Your task to perform on an android device: turn on bluetooth scan Image 0: 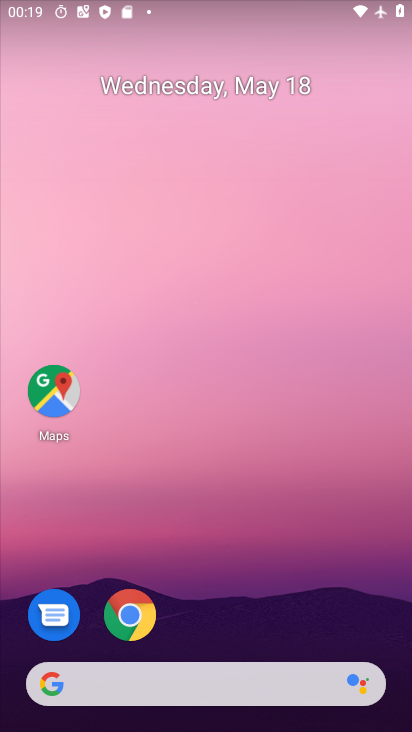
Step 0: drag from (207, 594) to (212, 228)
Your task to perform on an android device: turn on bluetooth scan Image 1: 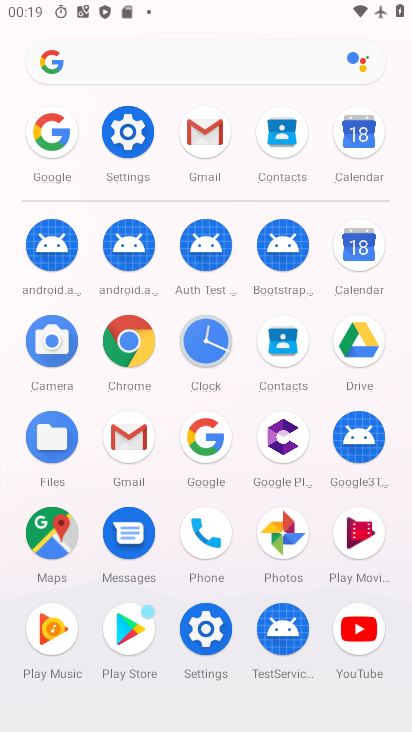
Step 1: click (149, 138)
Your task to perform on an android device: turn on bluetooth scan Image 2: 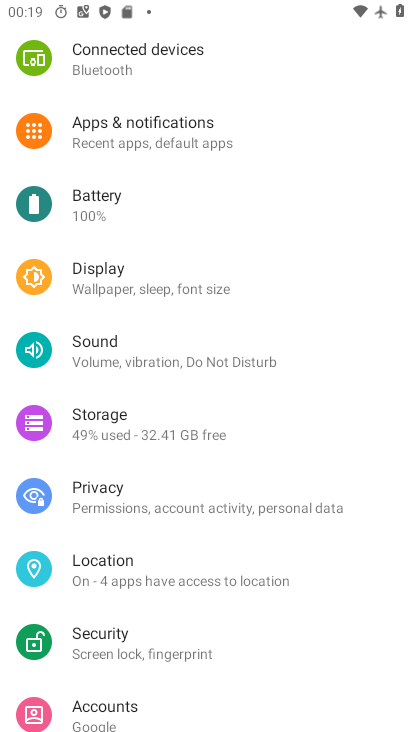
Step 2: click (164, 591)
Your task to perform on an android device: turn on bluetooth scan Image 3: 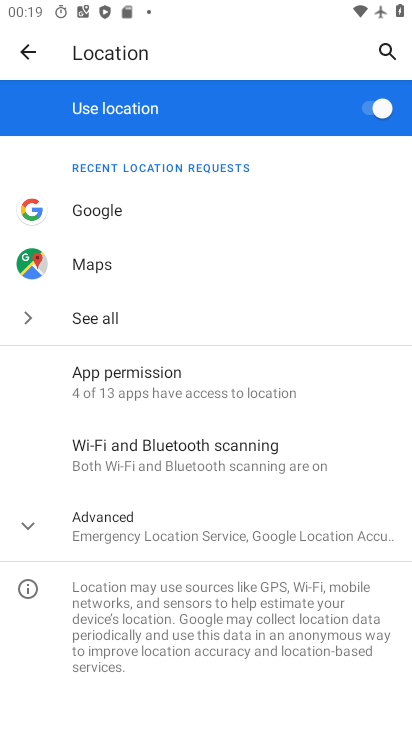
Step 3: click (182, 530)
Your task to perform on an android device: turn on bluetooth scan Image 4: 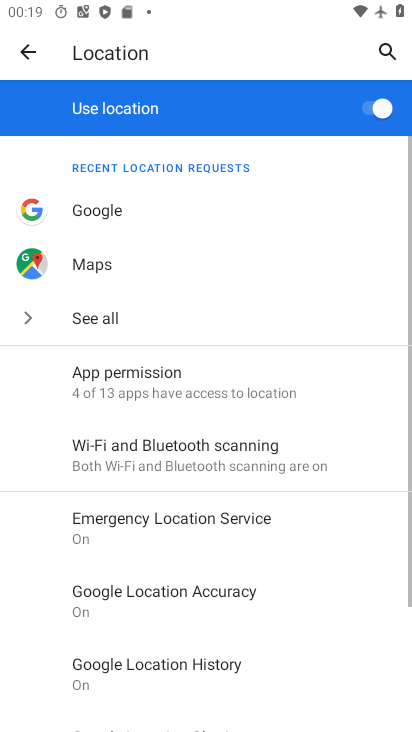
Step 4: drag from (198, 621) to (202, 331)
Your task to perform on an android device: turn on bluetooth scan Image 5: 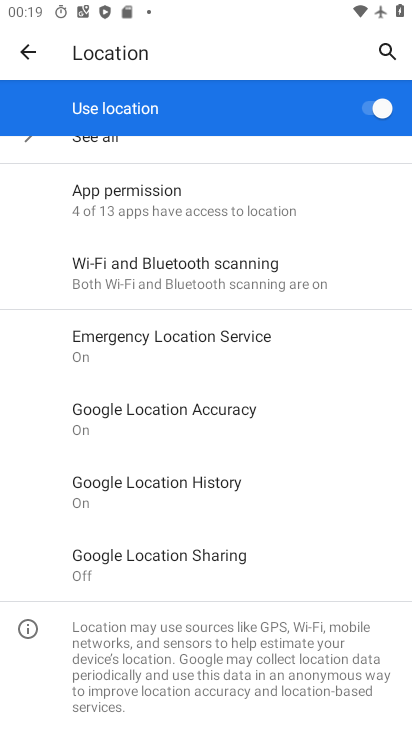
Step 5: drag from (210, 233) to (233, 419)
Your task to perform on an android device: turn on bluetooth scan Image 6: 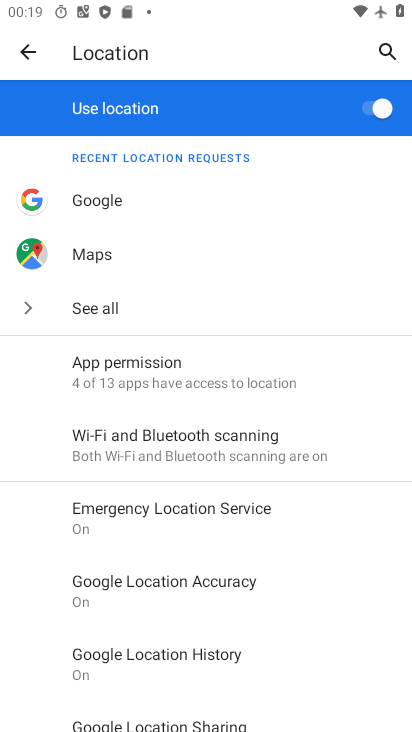
Step 6: drag from (222, 298) to (251, 582)
Your task to perform on an android device: turn on bluetooth scan Image 7: 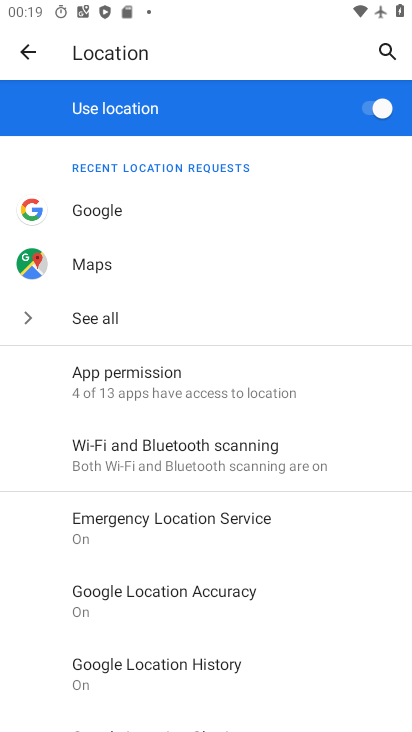
Step 7: click (24, 46)
Your task to perform on an android device: turn on bluetooth scan Image 8: 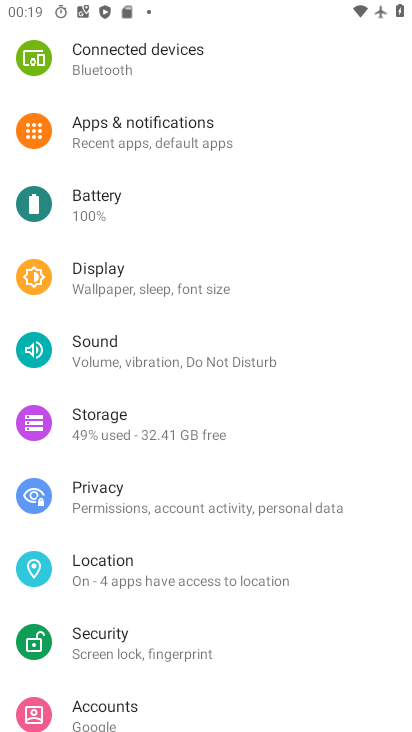
Step 8: click (149, 554)
Your task to perform on an android device: turn on bluetooth scan Image 9: 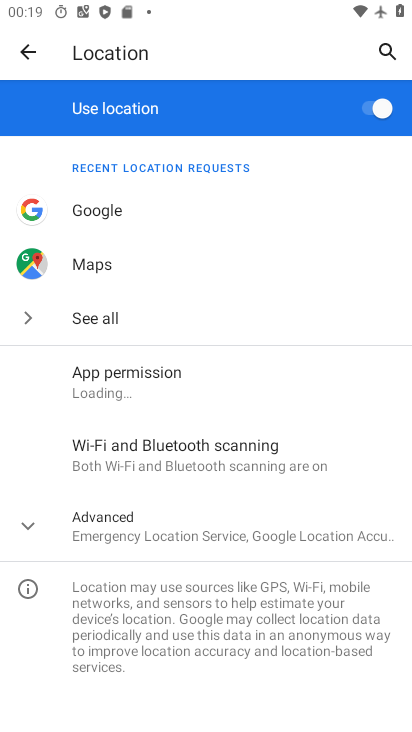
Step 9: click (225, 445)
Your task to perform on an android device: turn on bluetooth scan Image 10: 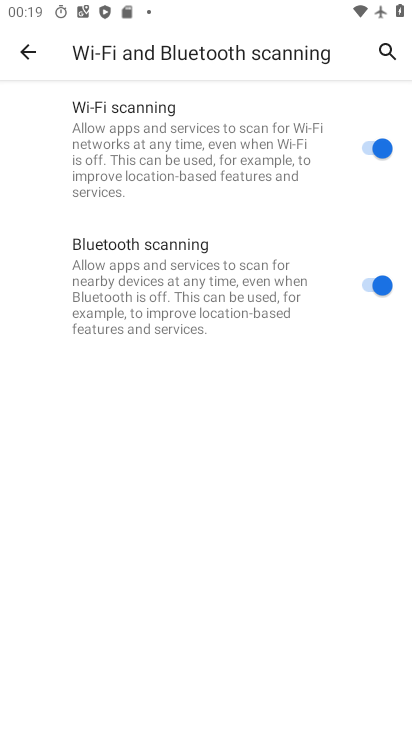
Step 10: task complete